Your task to perform on an android device: find which apps use the phone's location Image 0: 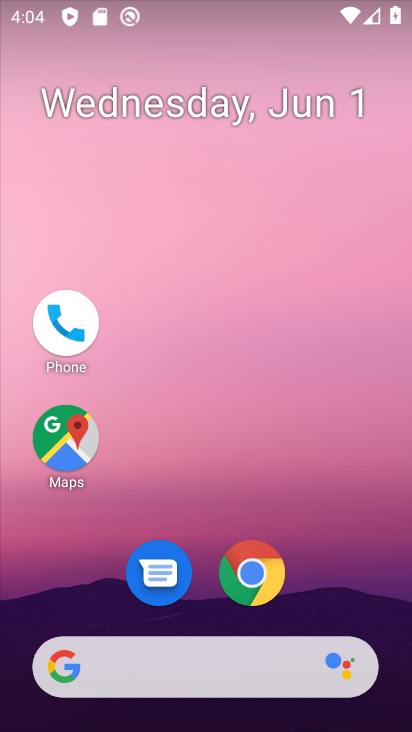
Step 0: drag from (222, 627) to (366, 4)
Your task to perform on an android device: find which apps use the phone's location Image 1: 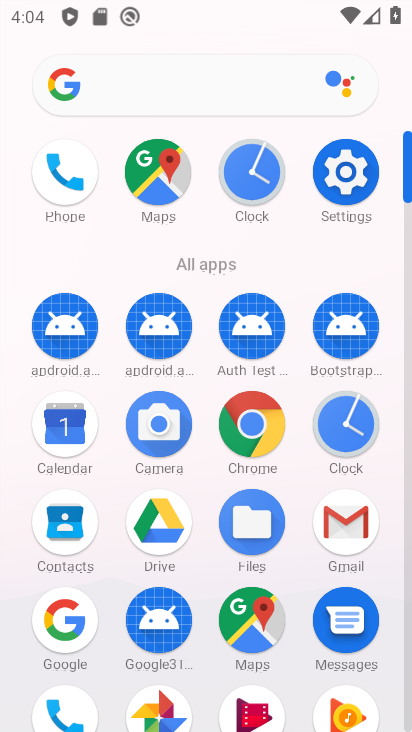
Step 1: click (341, 171)
Your task to perform on an android device: find which apps use the phone's location Image 2: 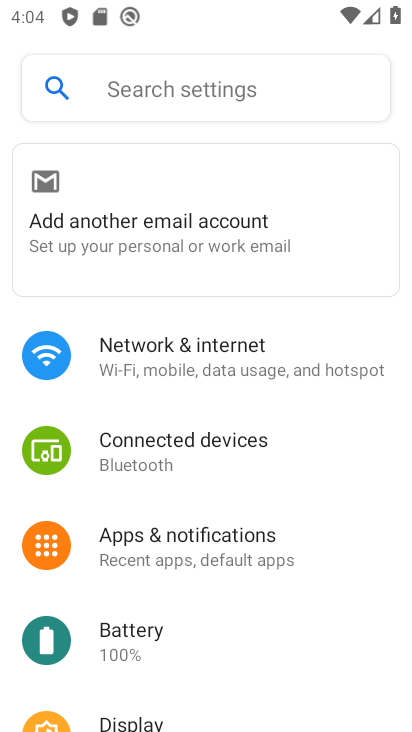
Step 2: drag from (161, 660) to (243, 63)
Your task to perform on an android device: find which apps use the phone's location Image 3: 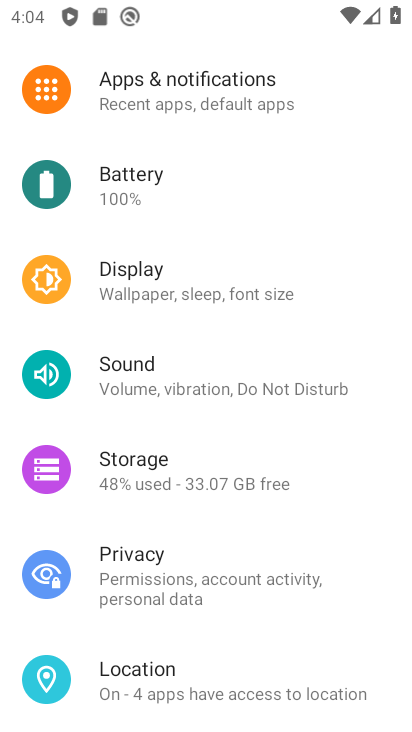
Step 3: click (118, 685)
Your task to perform on an android device: find which apps use the phone's location Image 4: 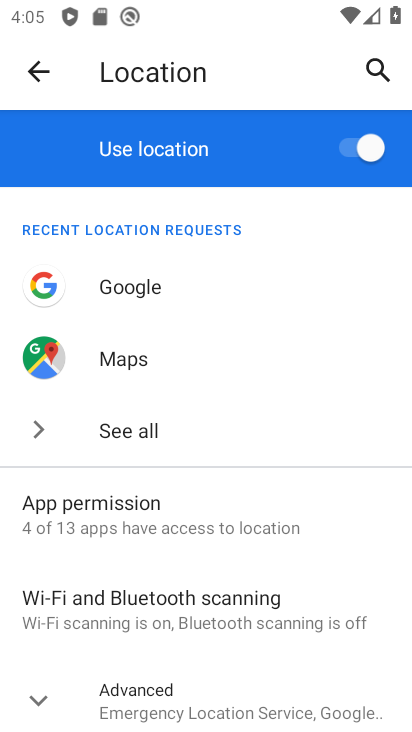
Step 4: click (147, 452)
Your task to perform on an android device: find which apps use the phone's location Image 5: 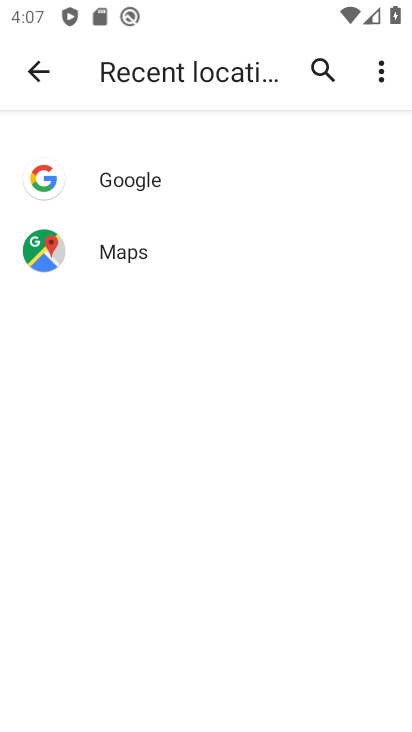
Step 5: task complete